Your task to perform on an android device: change the clock display to show seconds Image 0: 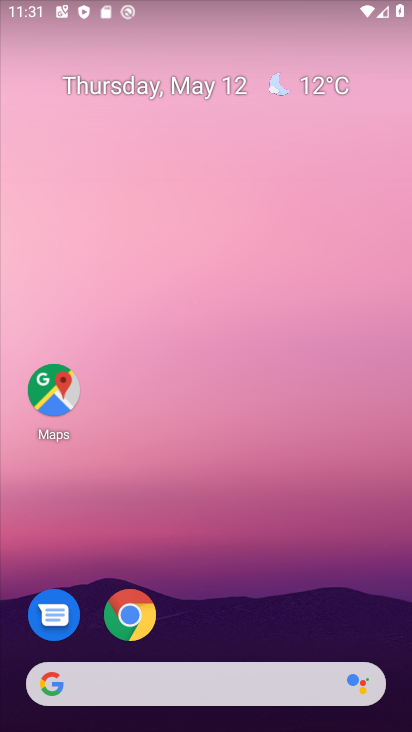
Step 0: drag from (201, 633) to (220, 206)
Your task to perform on an android device: change the clock display to show seconds Image 1: 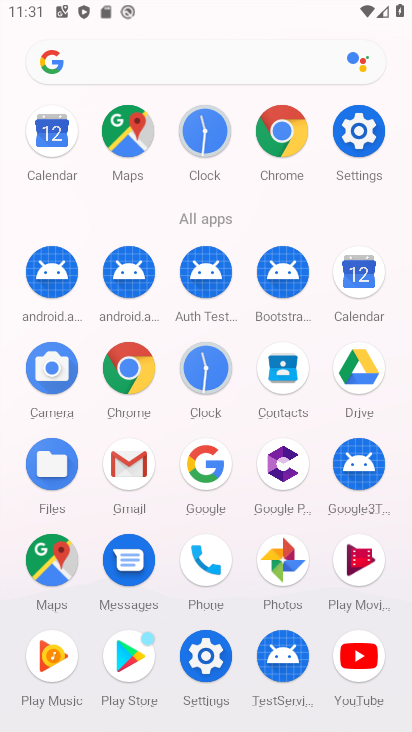
Step 1: click (200, 384)
Your task to perform on an android device: change the clock display to show seconds Image 2: 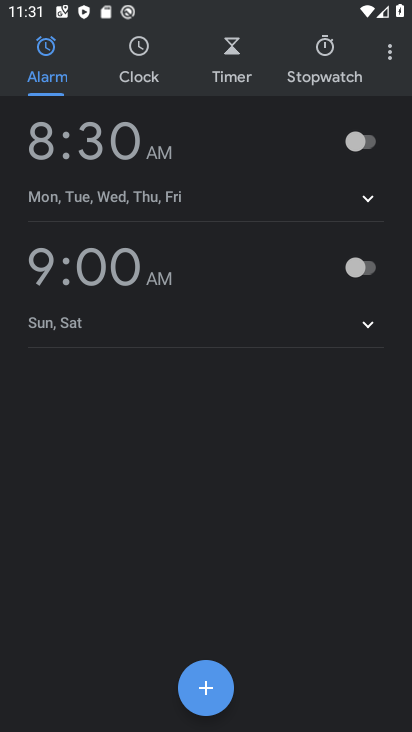
Step 2: click (392, 58)
Your task to perform on an android device: change the clock display to show seconds Image 3: 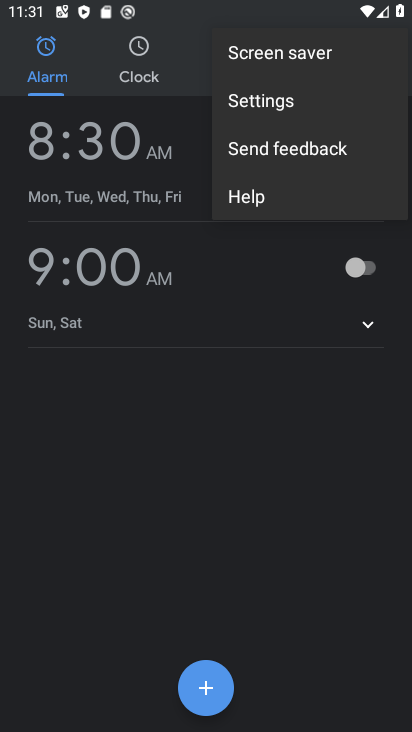
Step 3: click (258, 88)
Your task to perform on an android device: change the clock display to show seconds Image 4: 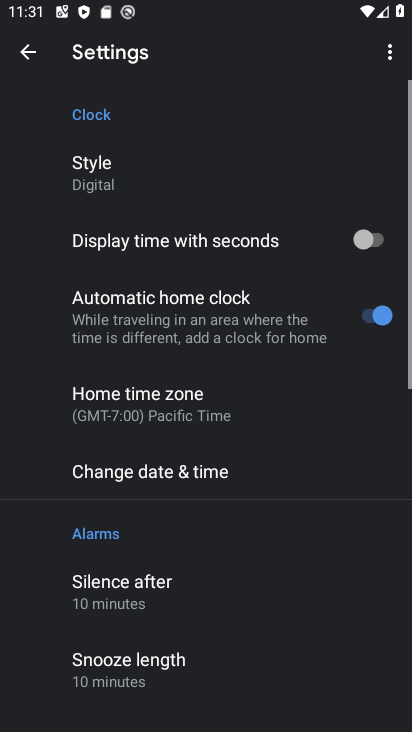
Step 4: drag from (263, 612) to (267, 498)
Your task to perform on an android device: change the clock display to show seconds Image 5: 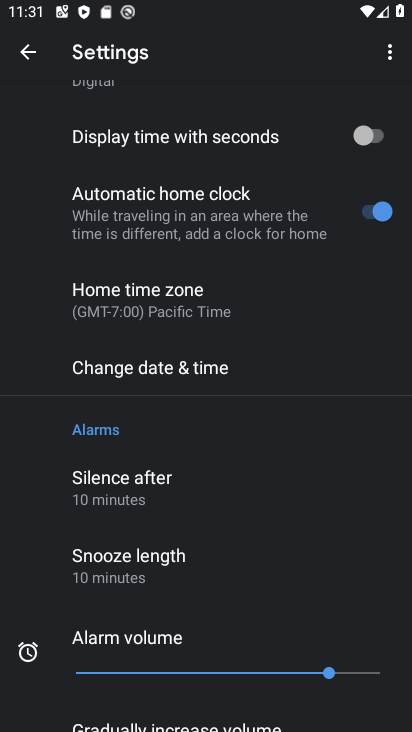
Step 5: click (385, 128)
Your task to perform on an android device: change the clock display to show seconds Image 6: 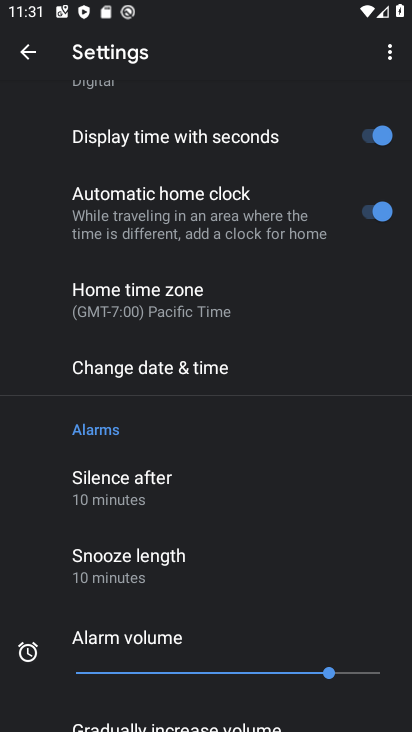
Step 6: task complete